Your task to perform on an android device: turn off wifi Image 0: 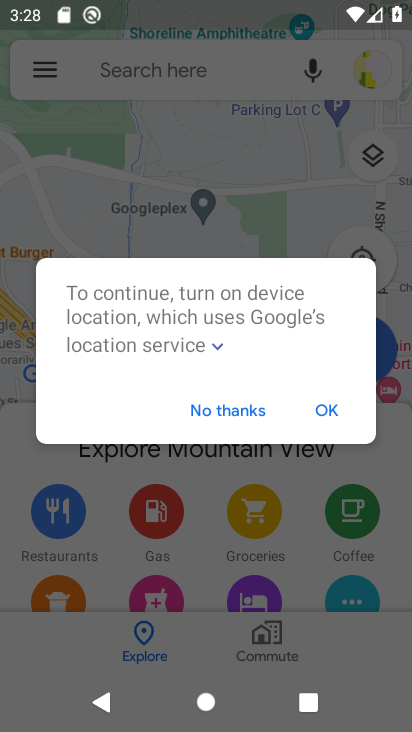
Step 0: press home button
Your task to perform on an android device: turn off wifi Image 1: 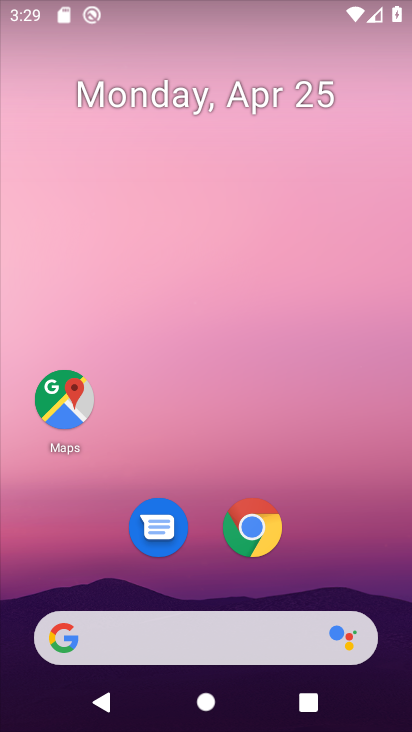
Step 1: drag from (347, 588) to (338, 111)
Your task to perform on an android device: turn off wifi Image 2: 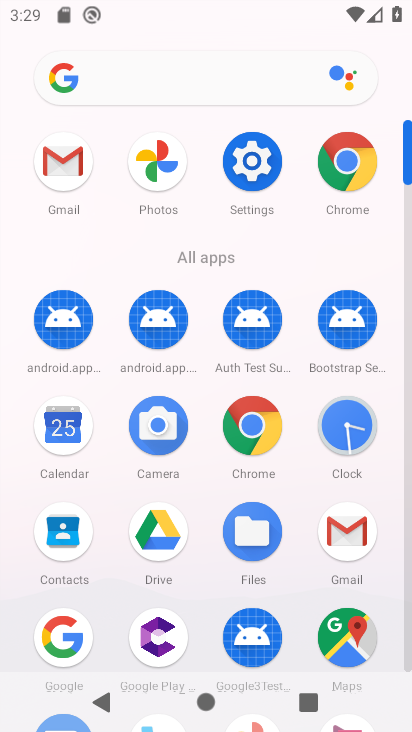
Step 2: click (407, 656)
Your task to perform on an android device: turn off wifi Image 3: 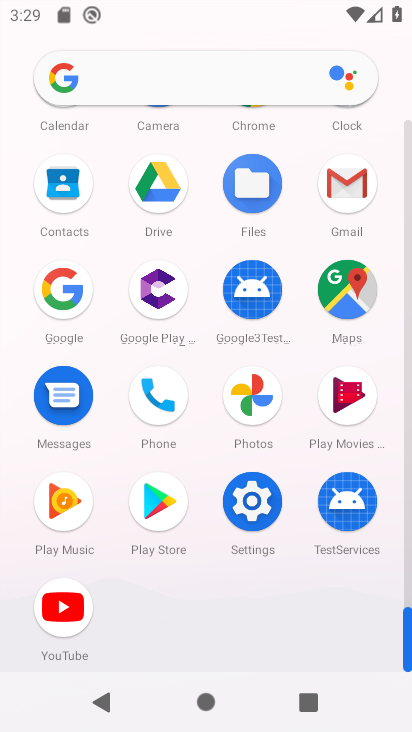
Step 3: click (246, 500)
Your task to perform on an android device: turn off wifi Image 4: 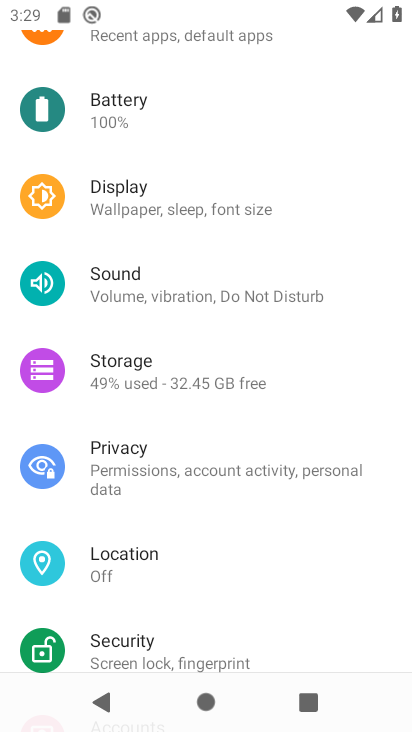
Step 4: drag from (328, 186) to (300, 406)
Your task to perform on an android device: turn off wifi Image 5: 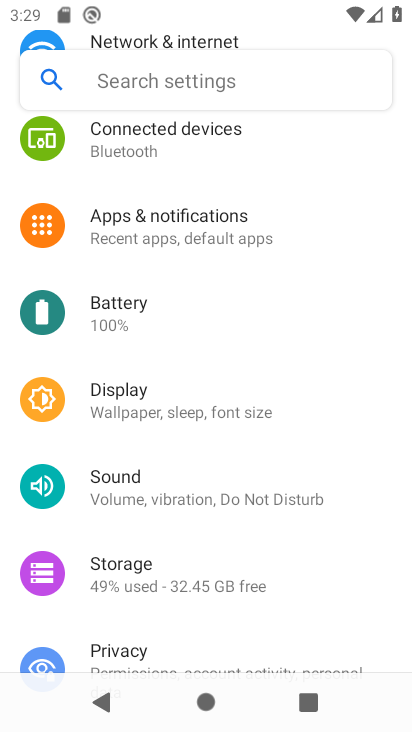
Step 5: drag from (319, 182) to (265, 505)
Your task to perform on an android device: turn off wifi Image 6: 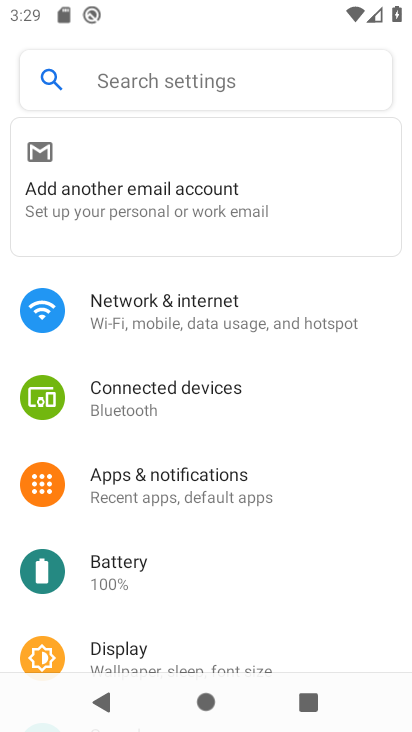
Step 6: click (174, 317)
Your task to perform on an android device: turn off wifi Image 7: 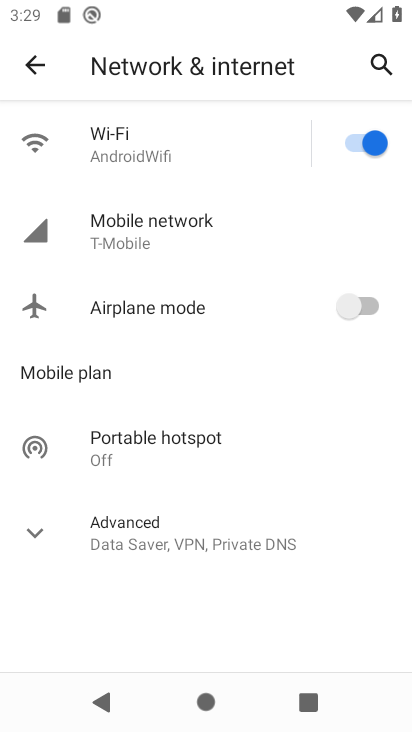
Step 7: click (356, 138)
Your task to perform on an android device: turn off wifi Image 8: 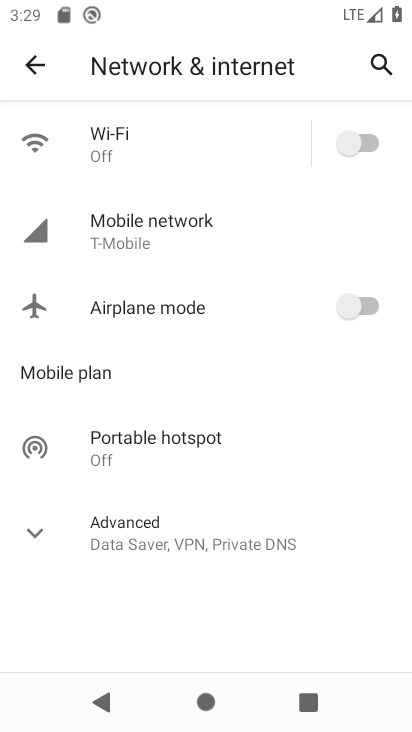
Step 8: task complete